Your task to perform on an android device: Do I have any events tomorrow? Image 0: 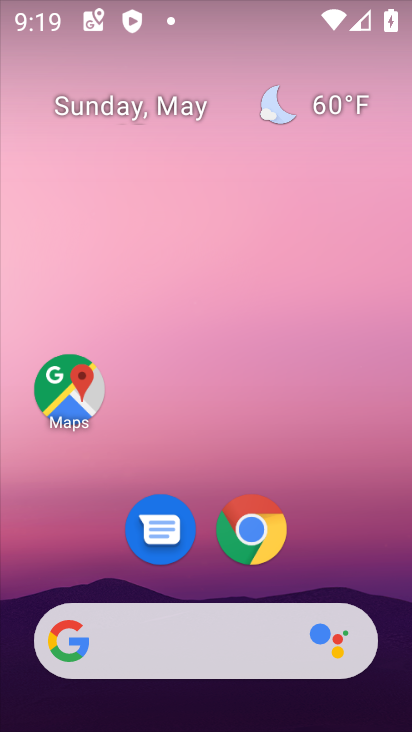
Step 0: drag from (393, 582) to (386, 63)
Your task to perform on an android device: Do I have any events tomorrow? Image 1: 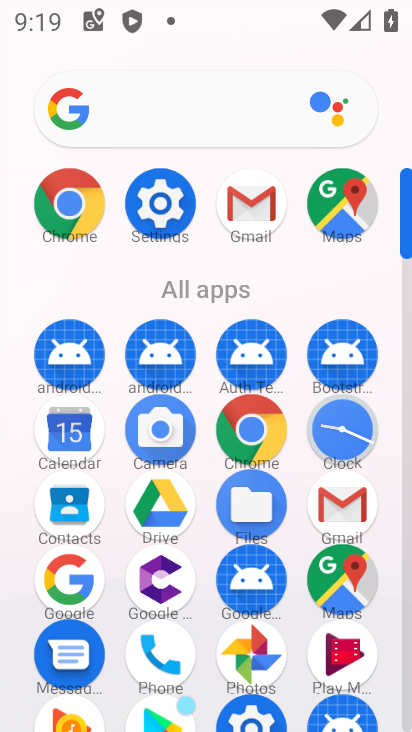
Step 1: click (64, 430)
Your task to perform on an android device: Do I have any events tomorrow? Image 2: 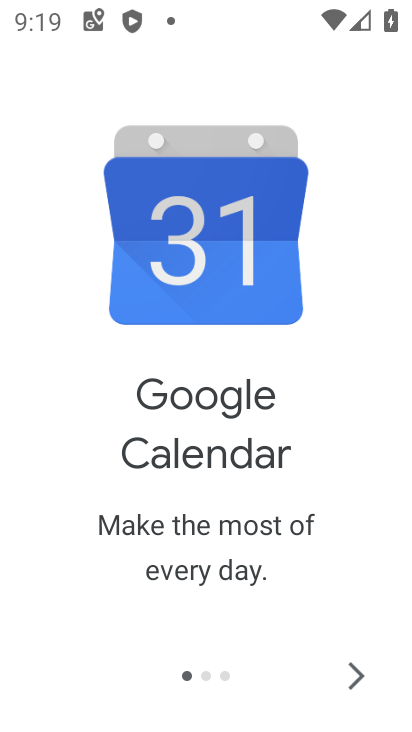
Step 2: click (348, 682)
Your task to perform on an android device: Do I have any events tomorrow? Image 3: 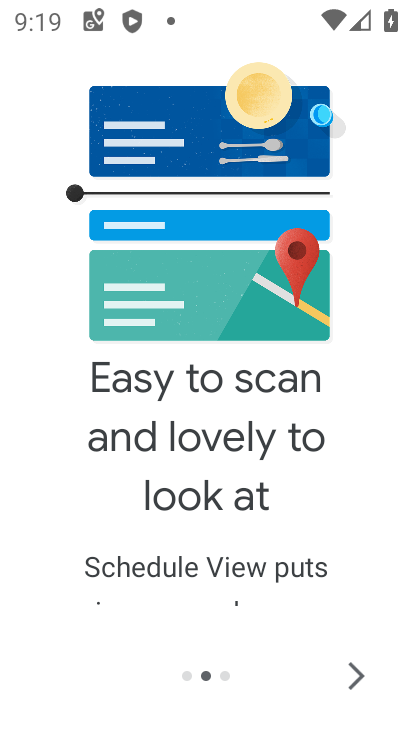
Step 3: click (348, 682)
Your task to perform on an android device: Do I have any events tomorrow? Image 4: 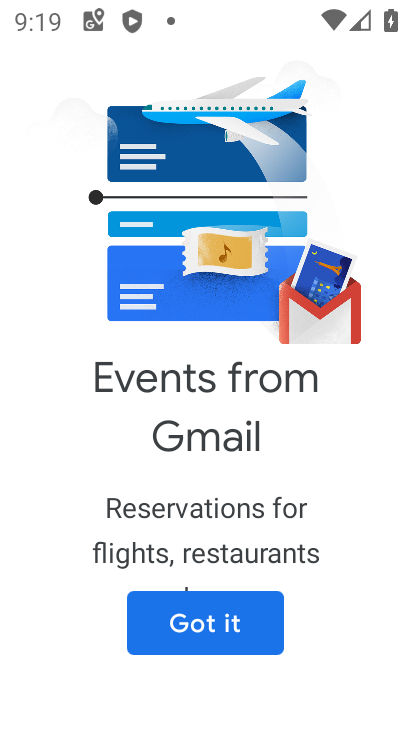
Step 4: click (239, 619)
Your task to perform on an android device: Do I have any events tomorrow? Image 5: 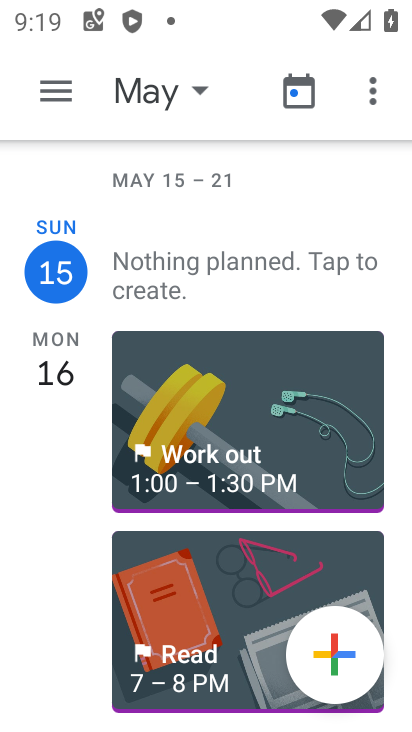
Step 5: drag from (313, 562) to (305, 294)
Your task to perform on an android device: Do I have any events tomorrow? Image 6: 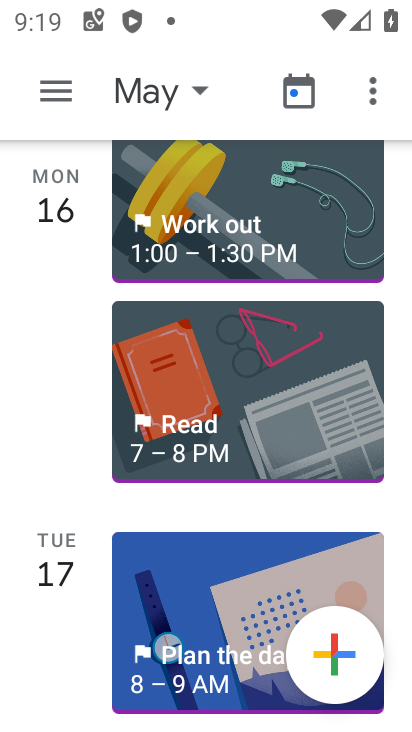
Step 6: click (209, 643)
Your task to perform on an android device: Do I have any events tomorrow? Image 7: 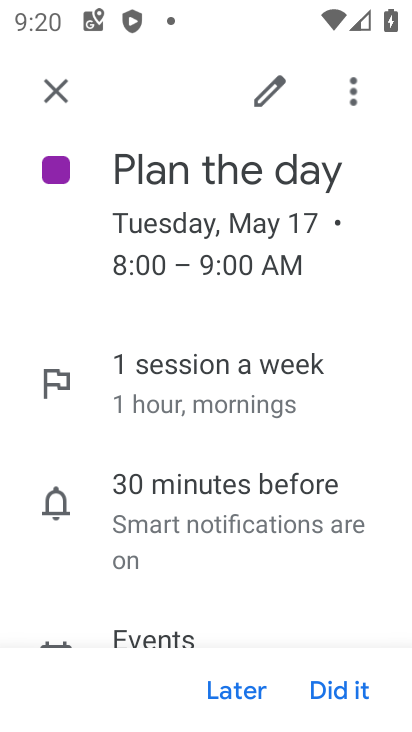
Step 7: task complete